Your task to perform on an android device: Show me recent news Image 0: 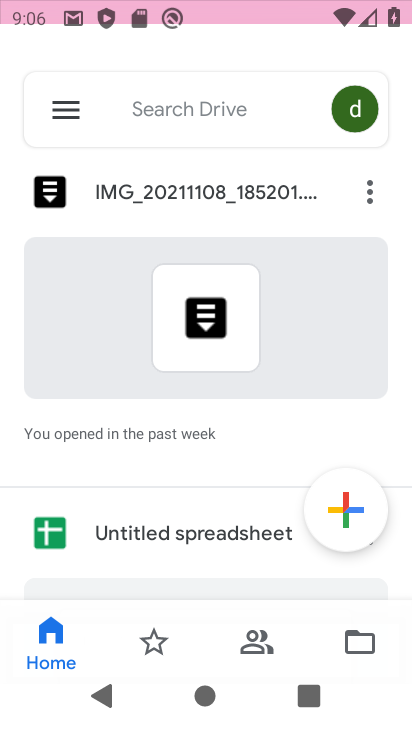
Step 0: click (224, 0)
Your task to perform on an android device: Show me recent news Image 1: 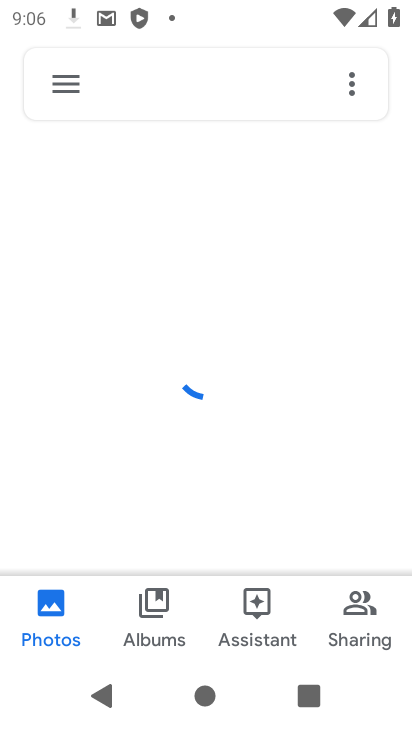
Step 1: press home button
Your task to perform on an android device: Show me recent news Image 2: 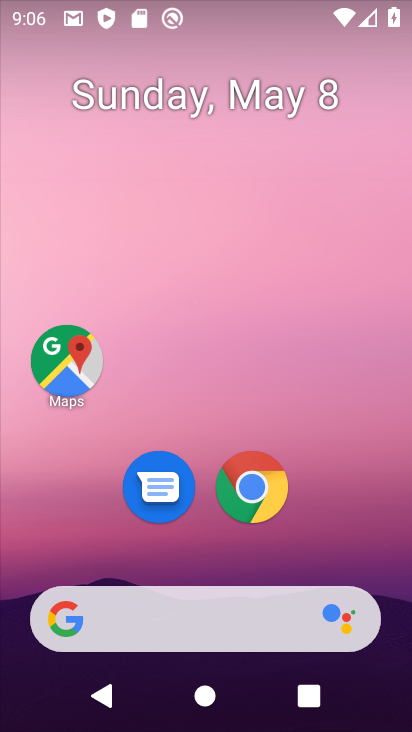
Step 2: click (58, 624)
Your task to perform on an android device: Show me recent news Image 3: 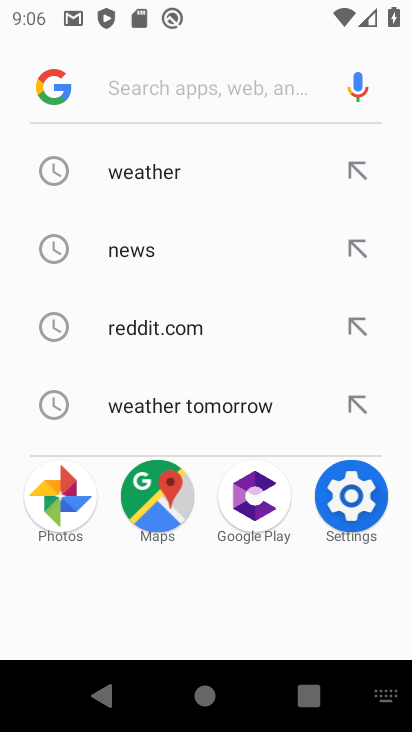
Step 3: click (143, 247)
Your task to perform on an android device: Show me recent news Image 4: 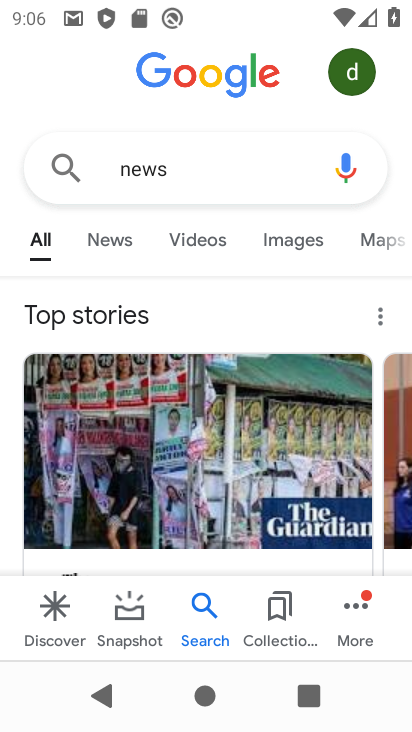
Step 4: click (112, 231)
Your task to perform on an android device: Show me recent news Image 5: 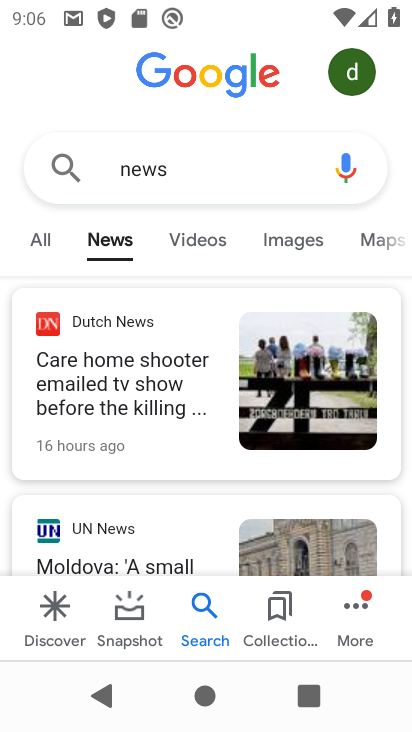
Step 5: task complete